Your task to perform on an android device: open chrome and create a bookmark for the current page Image 0: 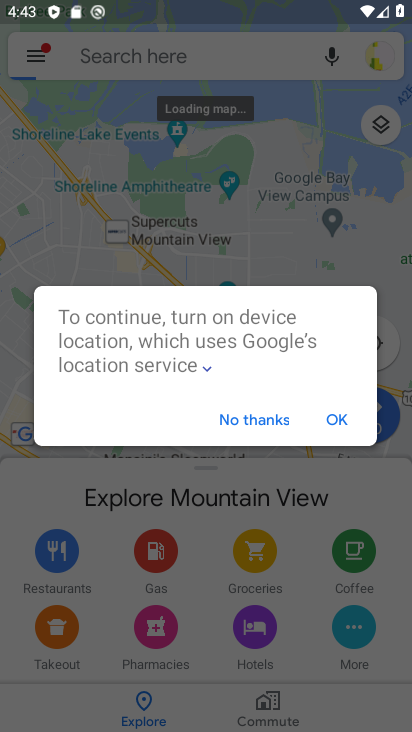
Step 0: press home button
Your task to perform on an android device: open chrome and create a bookmark for the current page Image 1: 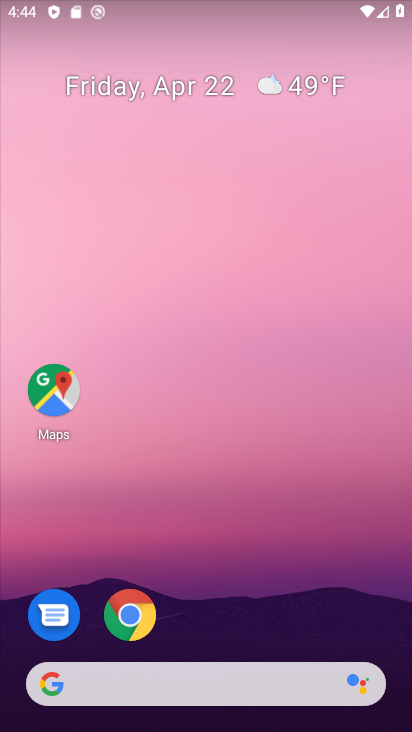
Step 1: click (117, 631)
Your task to perform on an android device: open chrome and create a bookmark for the current page Image 2: 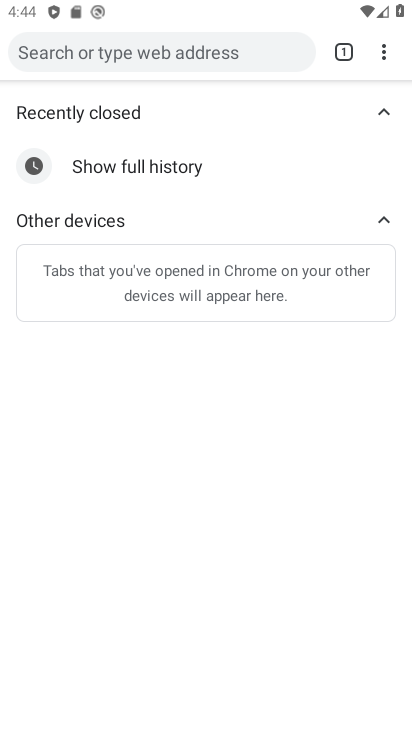
Step 2: click (382, 61)
Your task to perform on an android device: open chrome and create a bookmark for the current page Image 3: 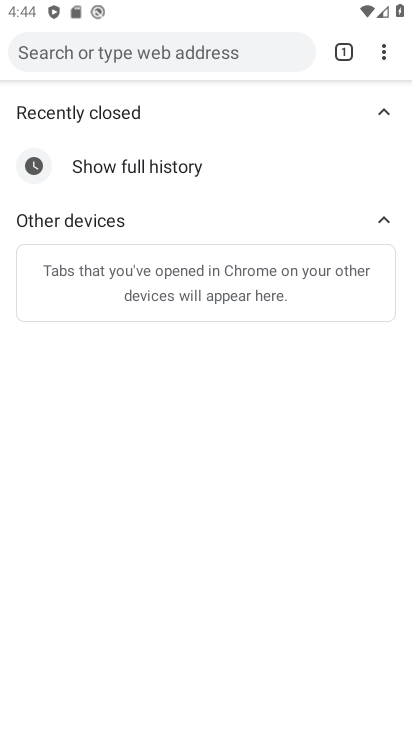
Step 3: click (205, 54)
Your task to perform on an android device: open chrome and create a bookmark for the current page Image 4: 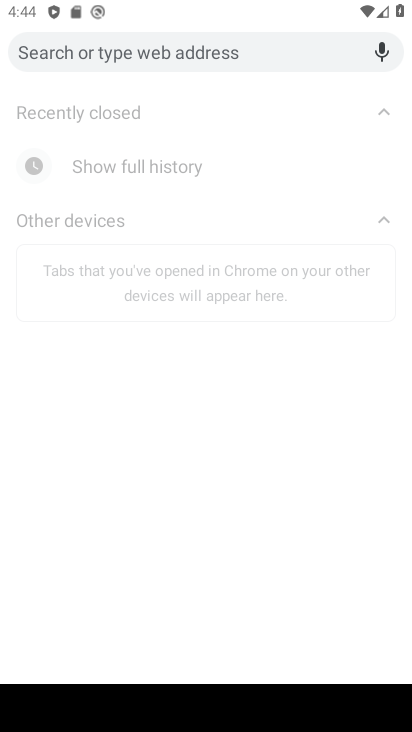
Step 4: click (150, 63)
Your task to perform on an android device: open chrome and create a bookmark for the current page Image 5: 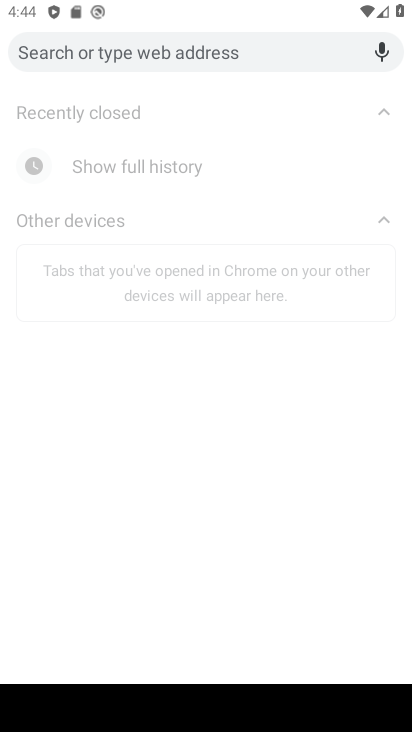
Step 5: click (145, 48)
Your task to perform on an android device: open chrome and create a bookmark for the current page Image 6: 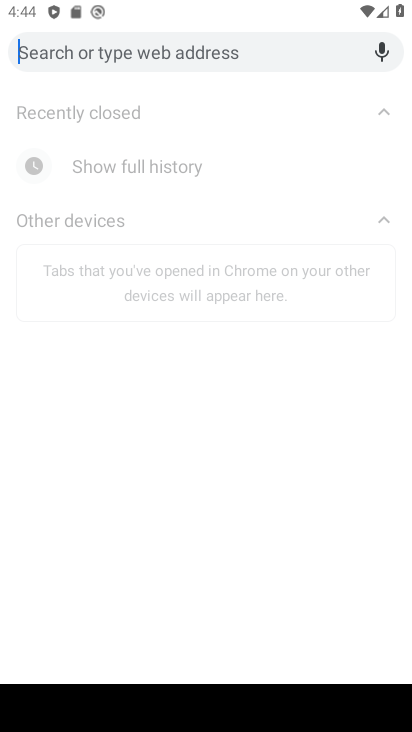
Step 6: press back button
Your task to perform on an android device: open chrome and create a bookmark for the current page Image 7: 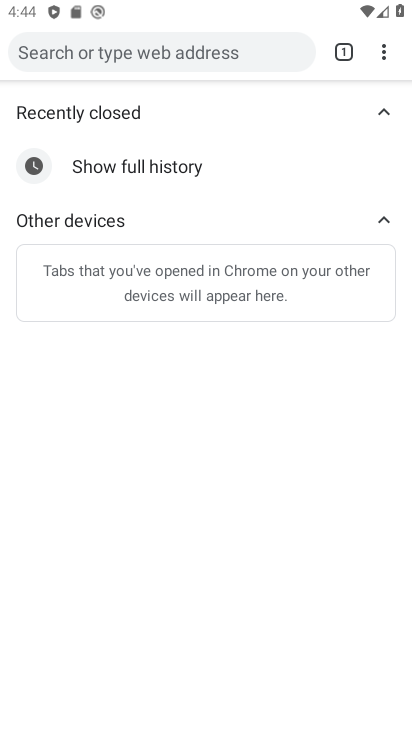
Step 7: click (126, 56)
Your task to perform on an android device: open chrome and create a bookmark for the current page Image 8: 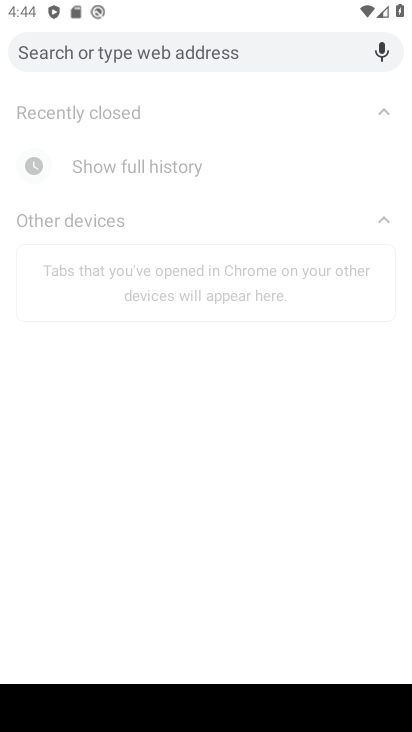
Step 8: type "fgfds"
Your task to perform on an android device: open chrome and create a bookmark for the current page Image 9: 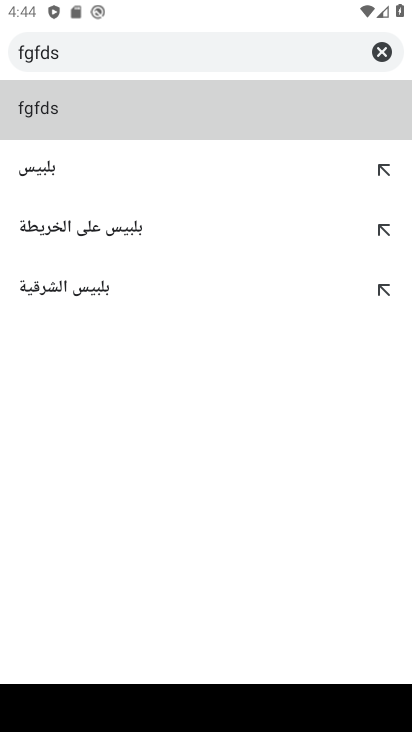
Step 9: click (134, 117)
Your task to perform on an android device: open chrome and create a bookmark for the current page Image 10: 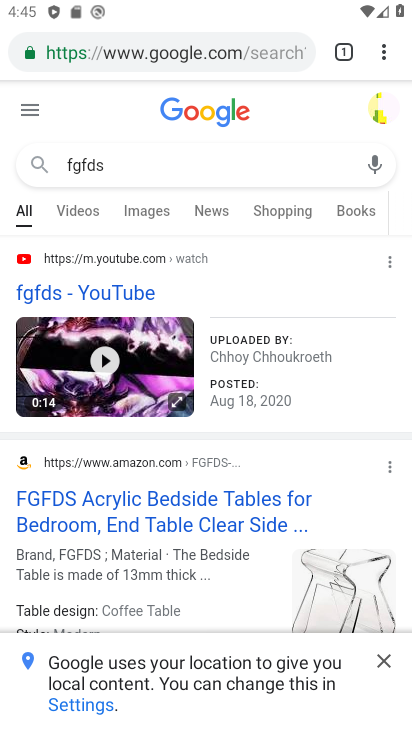
Step 10: click (135, 522)
Your task to perform on an android device: open chrome and create a bookmark for the current page Image 11: 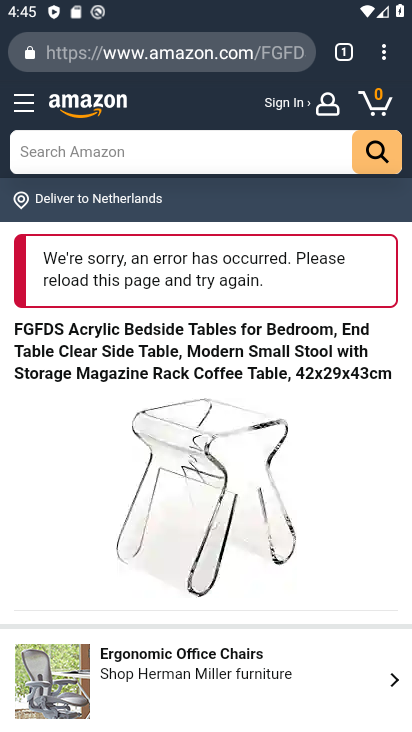
Step 11: click (385, 60)
Your task to perform on an android device: open chrome and create a bookmark for the current page Image 12: 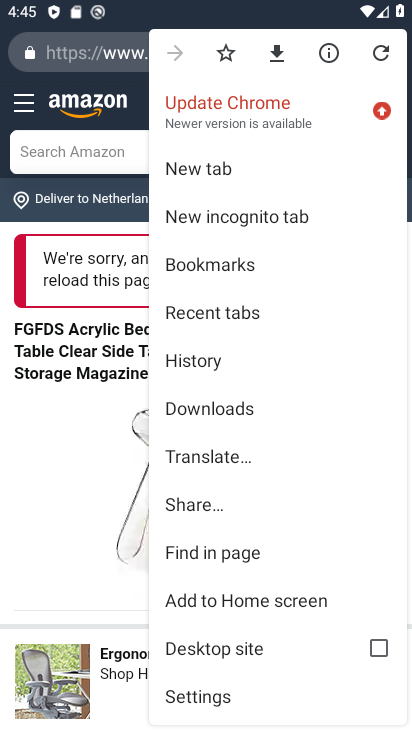
Step 12: click (225, 51)
Your task to perform on an android device: open chrome and create a bookmark for the current page Image 13: 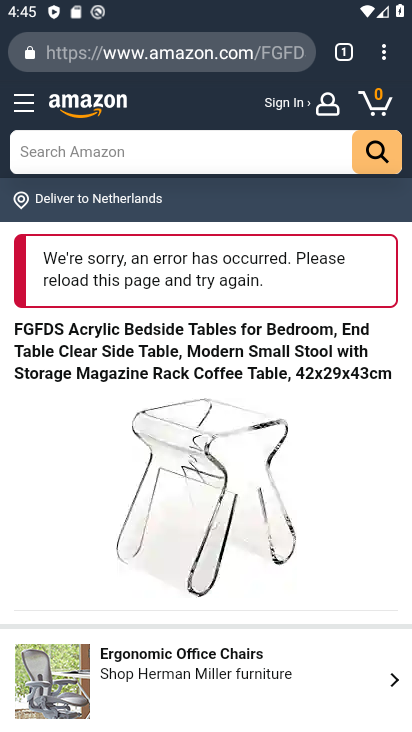
Step 13: task complete